Your task to perform on an android device: turn off data saver in the chrome app Image 0: 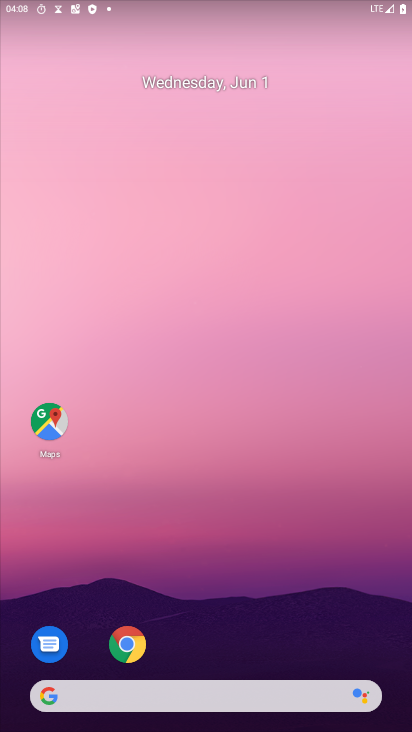
Step 0: click (134, 644)
Your task to perform on an android device: turn off data saver in the chrome app Image 1: 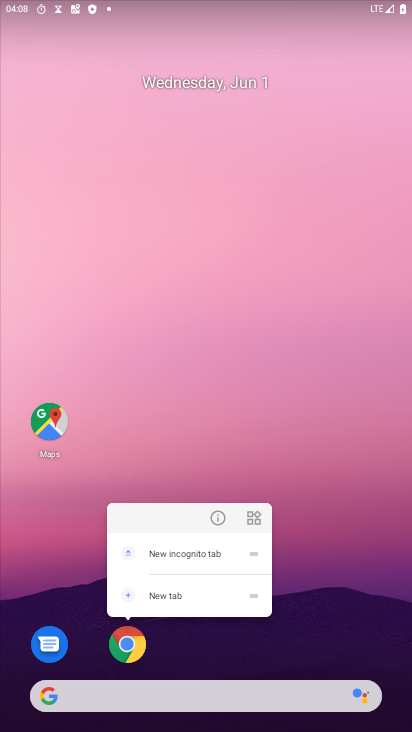
Step 1: click (137, 640)
Your task to perform on an android device: turn off data saver in the chrome app Image 2: 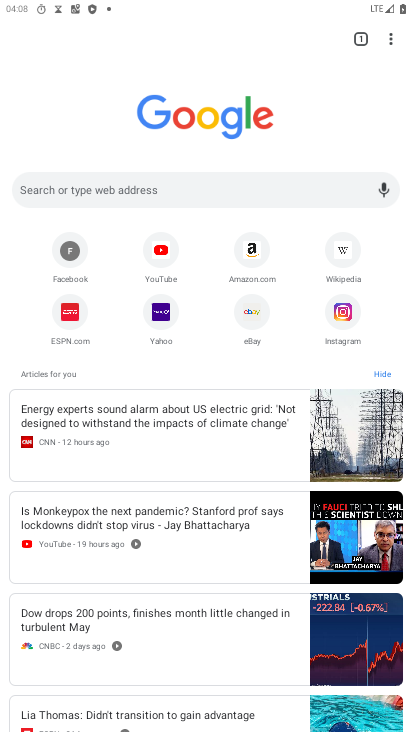
Step 2: click (393, 35)
Your task to perform on an android device: turn off data saver in the chrome app Image 3: 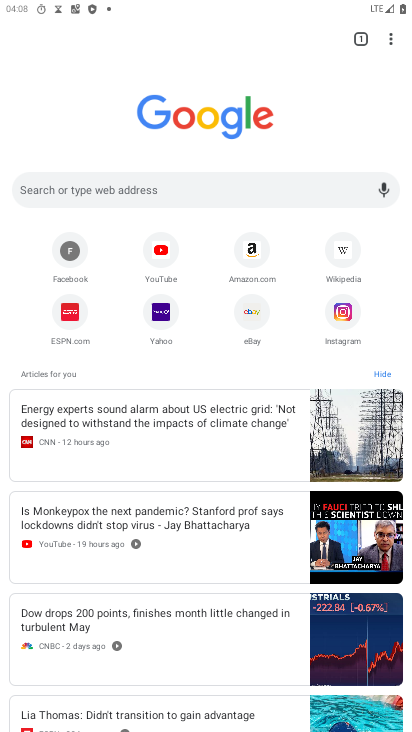
Step 3: drag from (392, 35) to (251, 332)
Your task to perform on an android device: turn off data saver in the chrome app Image 4: 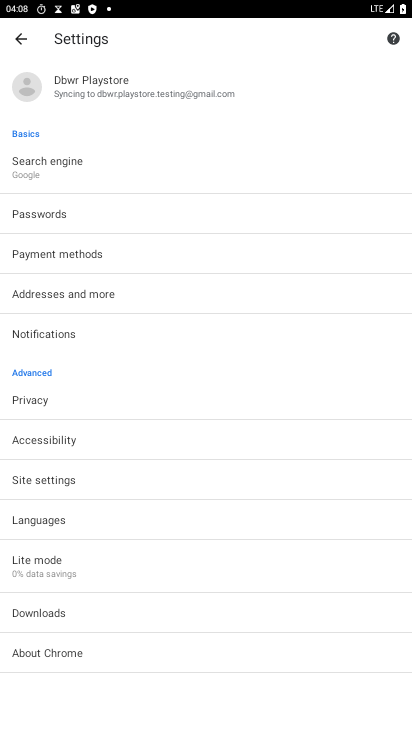
Step 4: click (53, 555)
Your task to perform on an android device: turn off data saver in the chrome app Image 5: 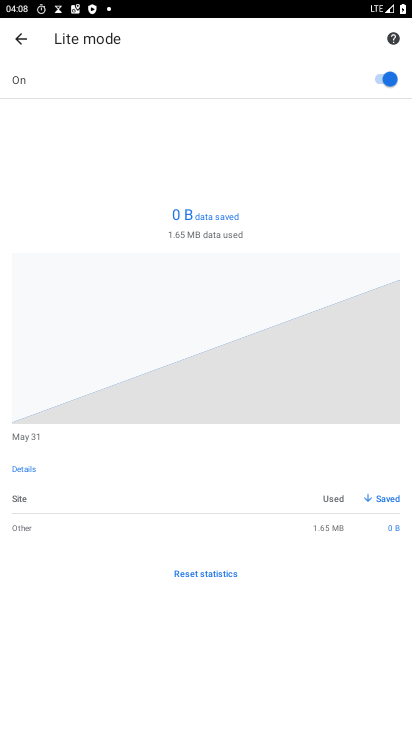
Step 5: task complete